Your task to perform on an android device: Search for Mexican restaurants on Maps Image 0: 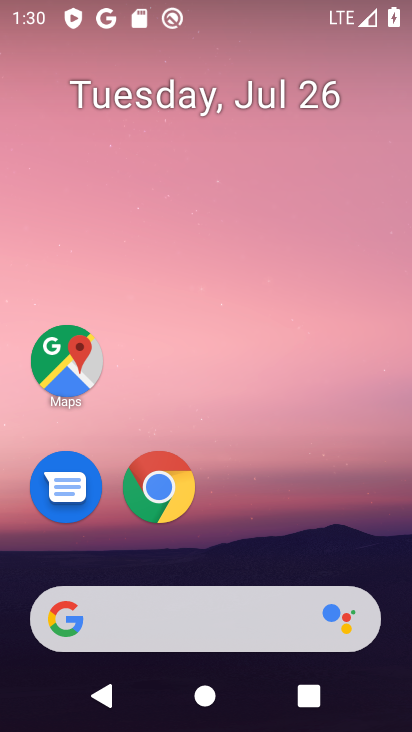
Step 0: drag from (209, 630) to (218, 48)
Your task to perform on an android device: Search for Mexican restaurants on Maps Image 1: 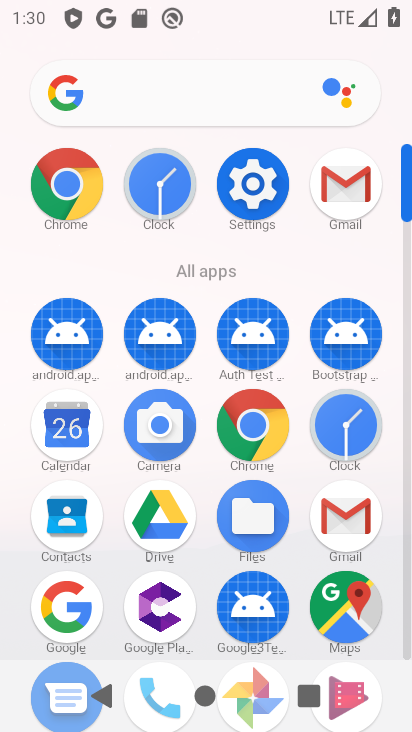
Step 1: click (353, 607)
Your task to perform on an android device: Search for Mexican restaurants on Maps Image 2: 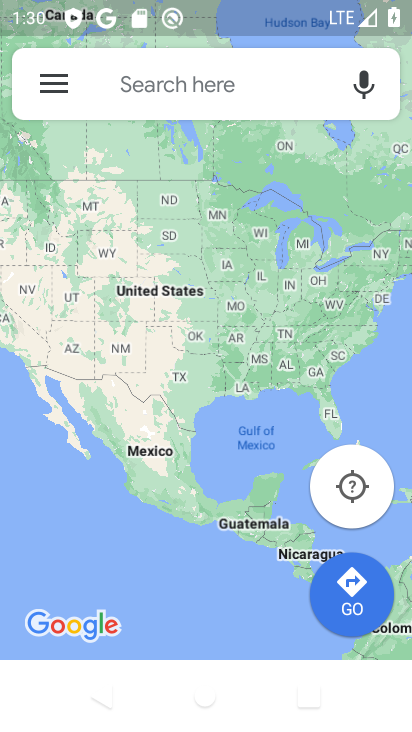
Step 2: click (232, 89)
Your task to perform on an android device: Search for Mexican restaurants on Maps Image 3: 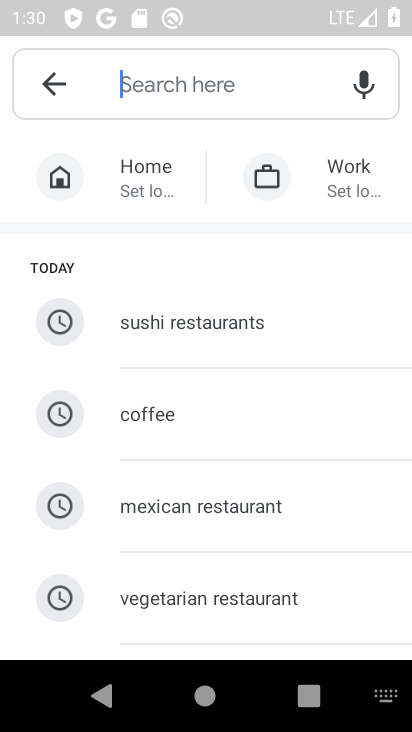
Step 3: drag from (254, 551) to (216, 173)
Your task to perform on an android device: Search for Mexican restaurants on Maps Image 4: 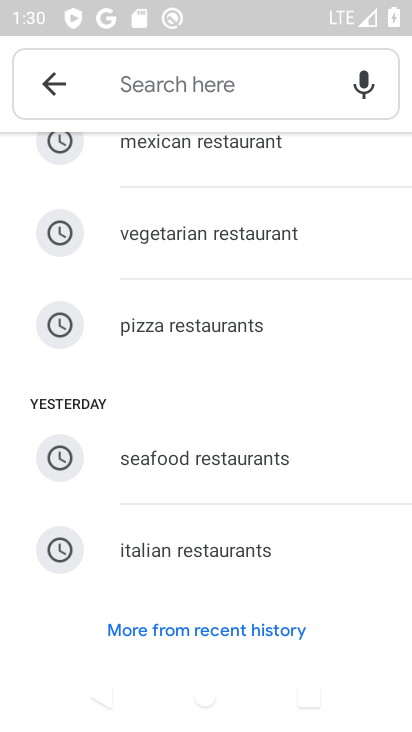
Step 4: click (220, 157)
Your task to perform on an android device: Search for Mexican restaurants on Maps Image 5: 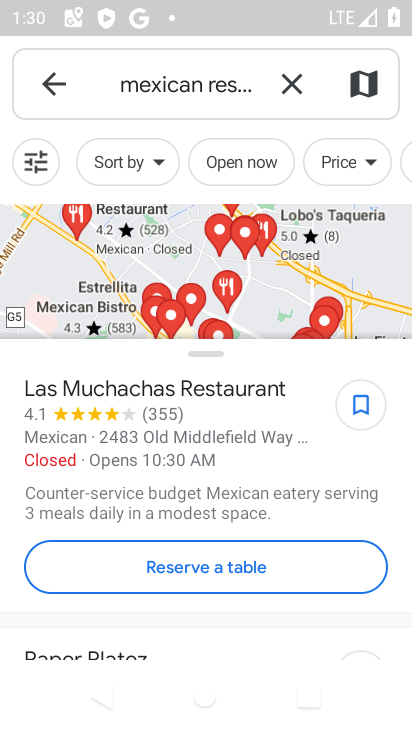
Step 5: task complete